Your task to perform on an android device: open device folders in google photos Image 0: 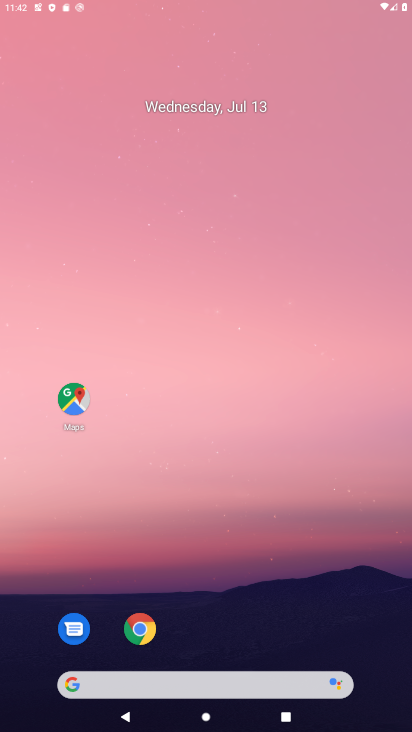
Step 0: click (191, 248)
Your task to perform on an android device: open device folders in google photos Image 1: 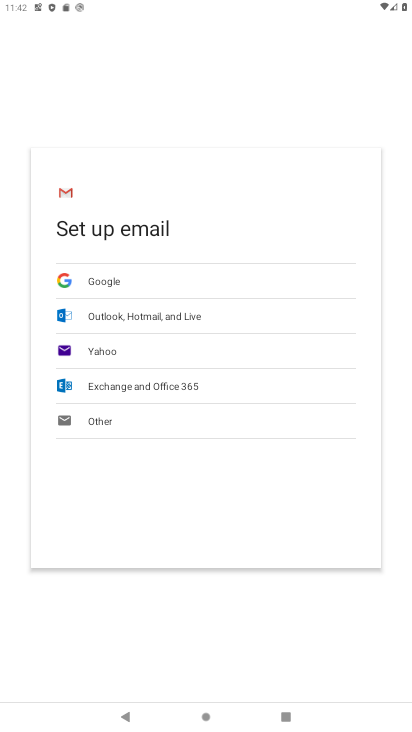
Step 1: press back button
Your task to perform on an android device: open device folders in google photos Image 2: 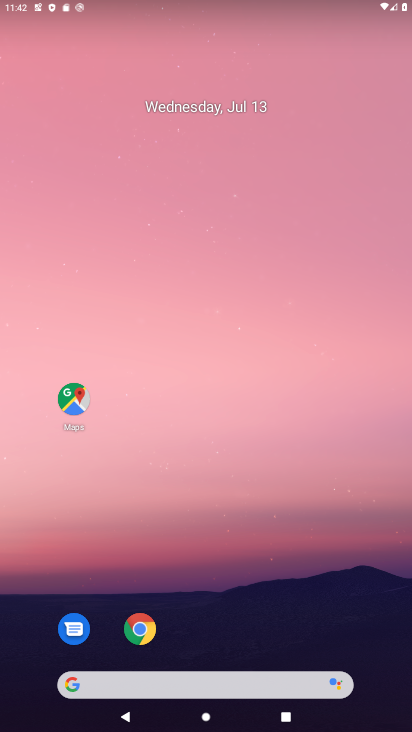
Step 2: drag from (259, 647) to (133, 146)
Your task to perform on an android device: open device folders in google photos Image 3: 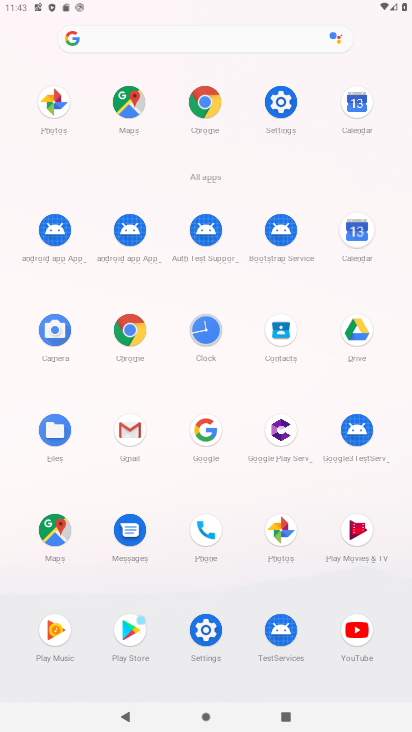
Step 3: click (290, 523)
Your task to perform on an android device: open device folders in google photos Image 4: 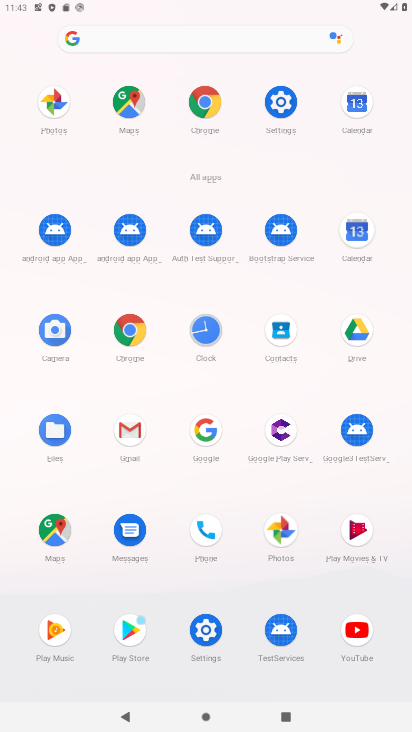
Step 4: click (291, 522)
Your task to perform on an android device: open device folders in google photos Image 5: 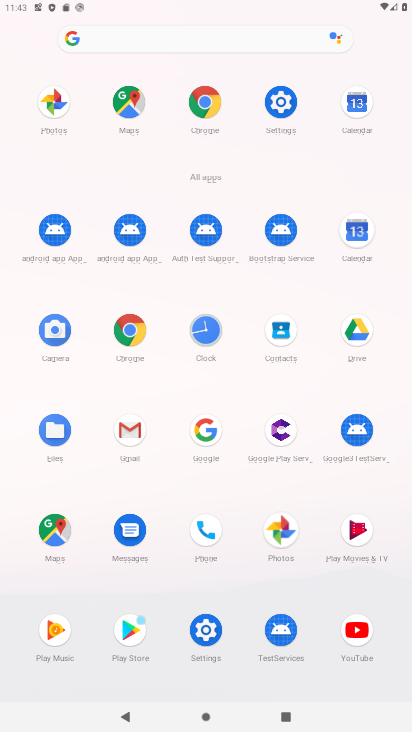
Step 5: click (291, 523)
Your task to perform on an android device: open device folders in google photos Image 6: 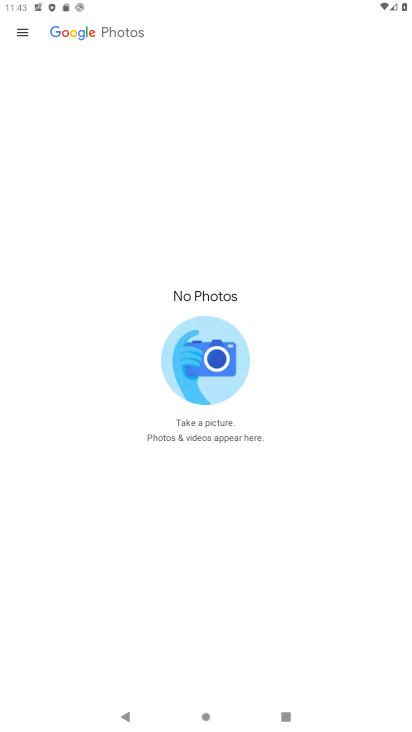
Step 6: click (14, 31)
Your task to perform on an android device: open device folders in google photos Image 7: 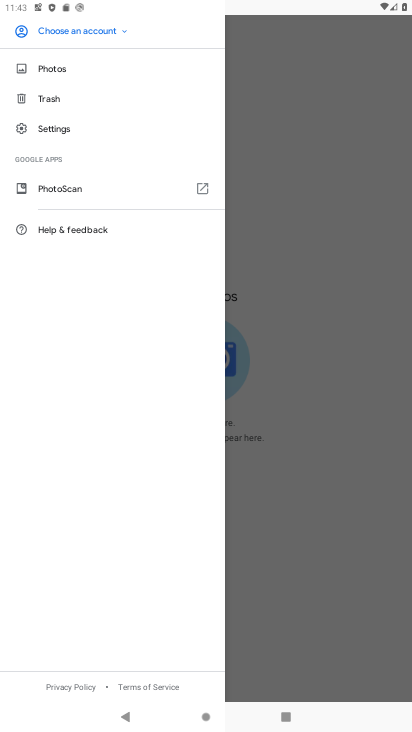
Step 7: drag from (44, 81) to (44, 382)
Your task to perform on an android device: open device folders in google photos Image 8: 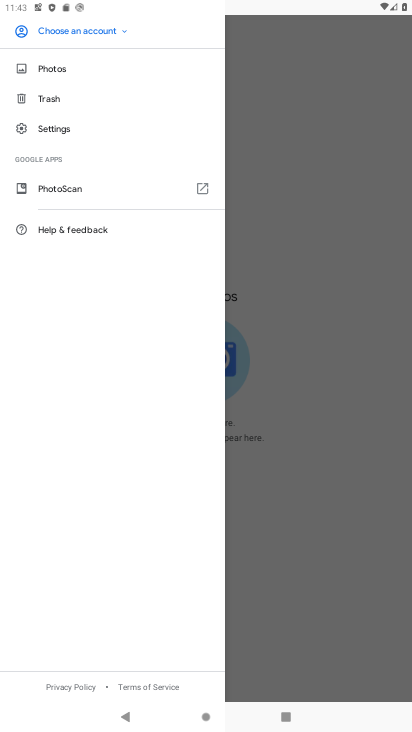
Step 8: click (51, 127)
Your task to perform on an android device: open device folders in google photos Image 9: 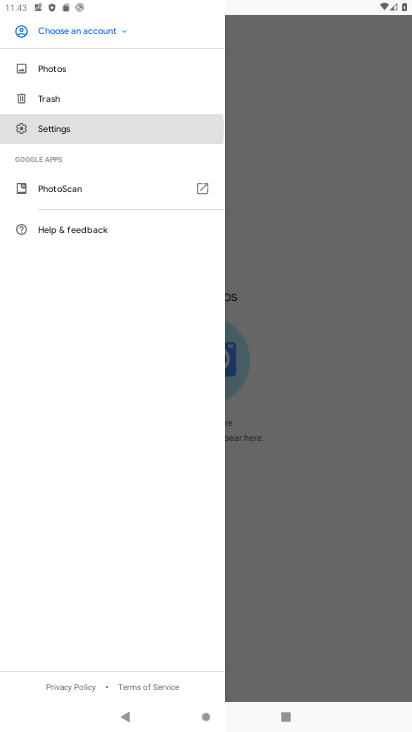
Step 9: click (51, 127)
Your task to perform on an android device: open device folders in google photos Image 10: 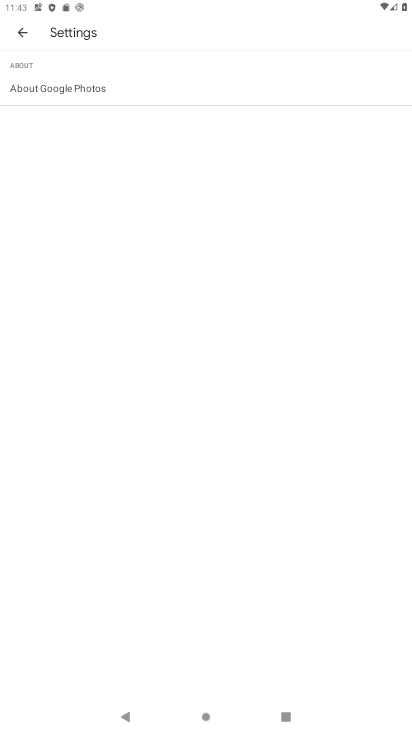
Step 10: click (15, 18)
Your task to perform on an android device: open device folders in google photos Image 11: 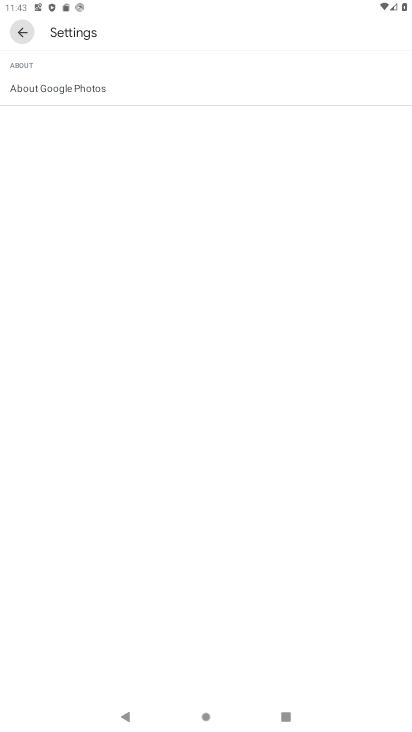
Step 11: click (22, 30)
Your task to perform on an android device: open device folders in google photos Image 12: 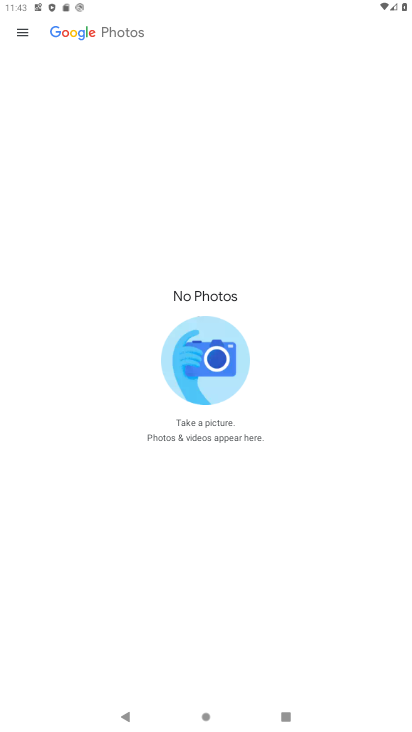
Step 12: drag from (19, 23) to (170, 728)
Your task to perform on an android device: open device folders in google photos Image 13: 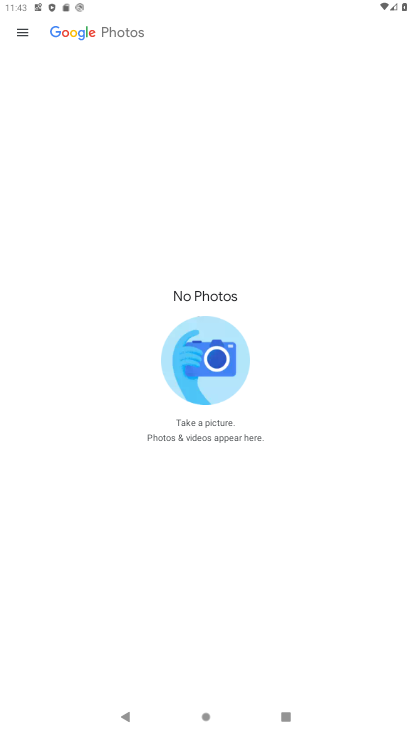
Step 13: drag from (30, 33) to (109, 145)
Your task to perform on an android device: open device folders in google photos Image 14: 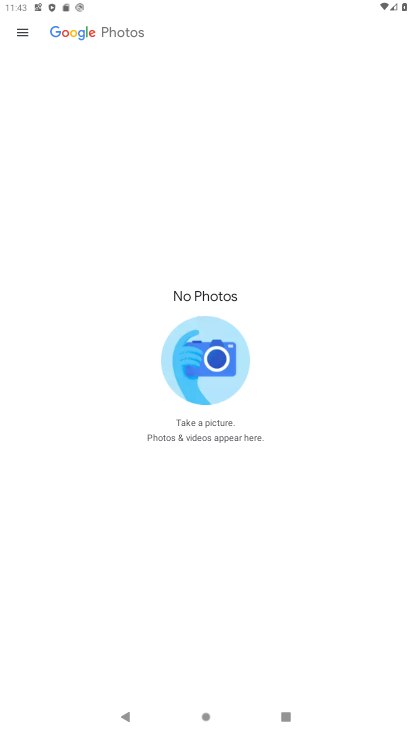
Step 14: click (21, 41)
Your task to perform on an android device: open device folders in google photos Image 15: 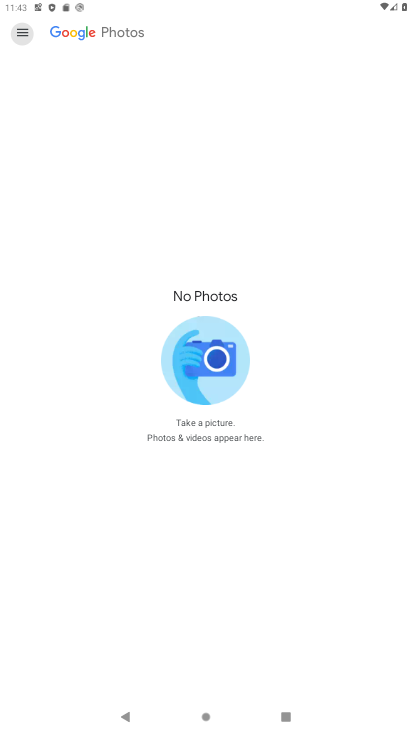
Step 15: drag from (21, 41) to (411, 358)
Your task to perform on an android device: open device folders in google photos Image 16: 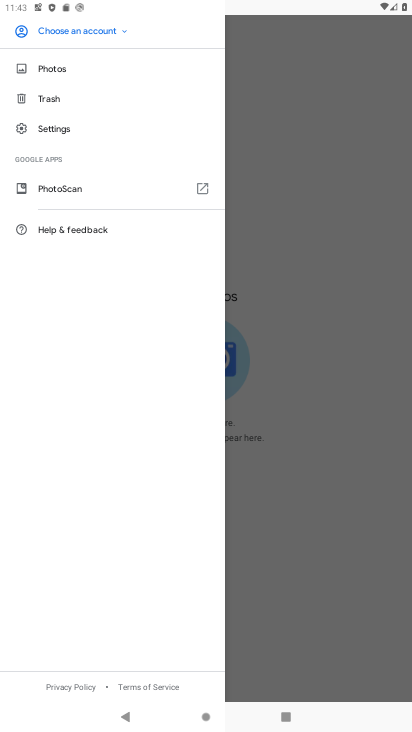
Step 16: click (45, 118)
Your task to perform on an android device: open device folders in google photos Image 17: 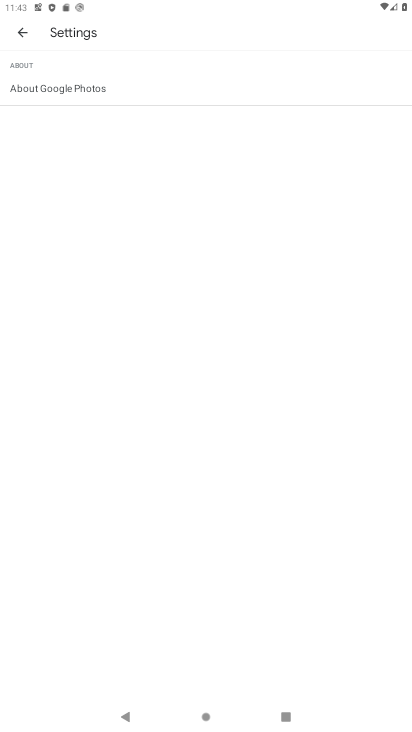
Step 17: click (65, 82)
Your task to perform on an android device: open device folders in google photos Image 18: 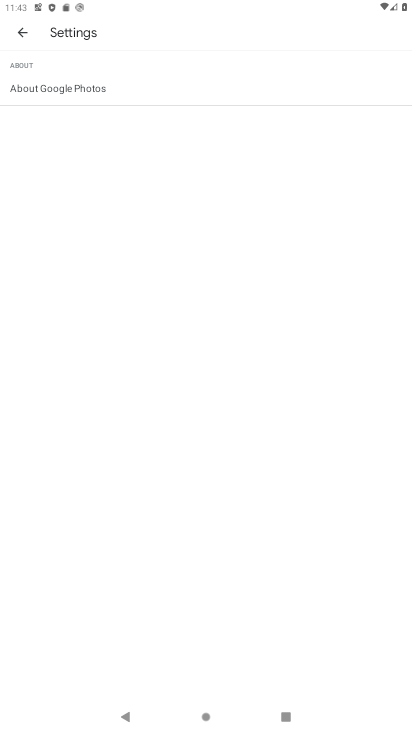
Step 18: click (65, 82)
Your task to perform on an android device: open device folders in google photos Image 19: 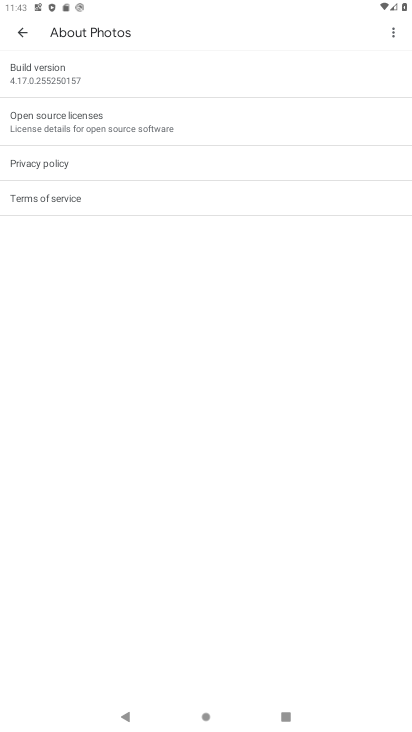
Step 19: task complete